Your task to perform on an android device: Go to Google maps Image 0: 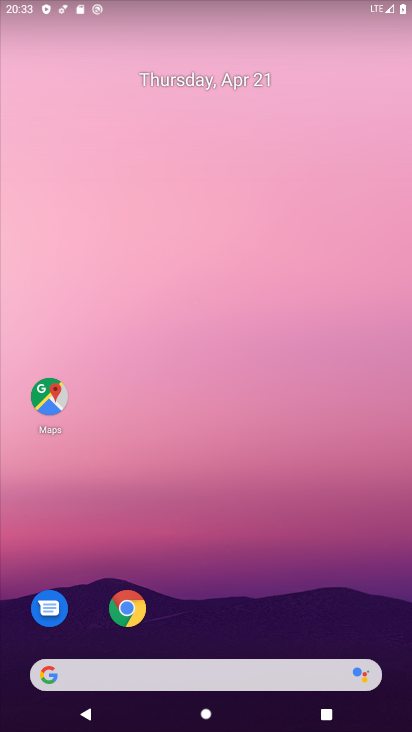
Step 0: click (51, 404)
Your task to perform on an android device: Go to Google maps Image 1: 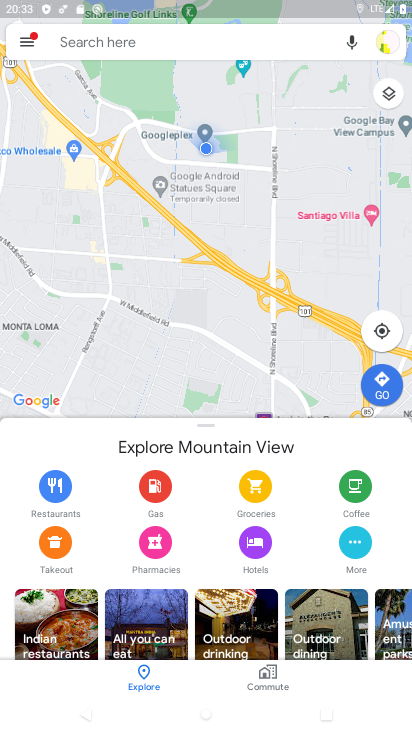
Step 1: task complete